Your task to perform on an android device: Check the news Image 0: 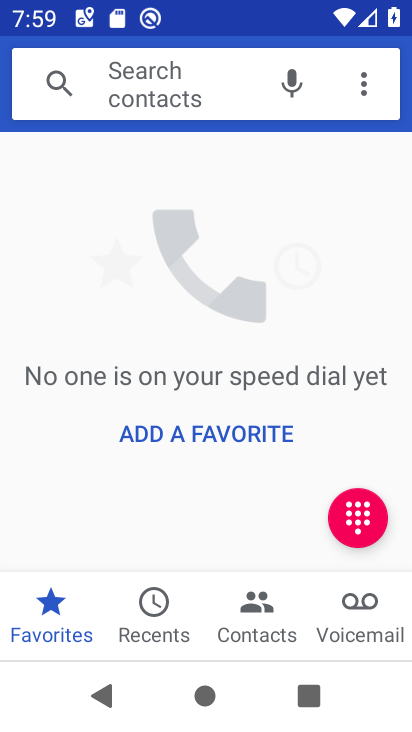
Step 0: press back button
Your task to perform on an android device: Check the news Image 1: 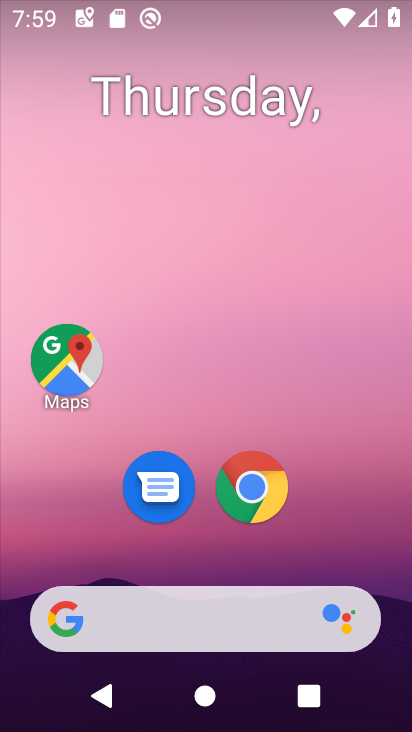
Step 1: click (169, 621)
Your task to perform on an android device: Check the news Image 2: 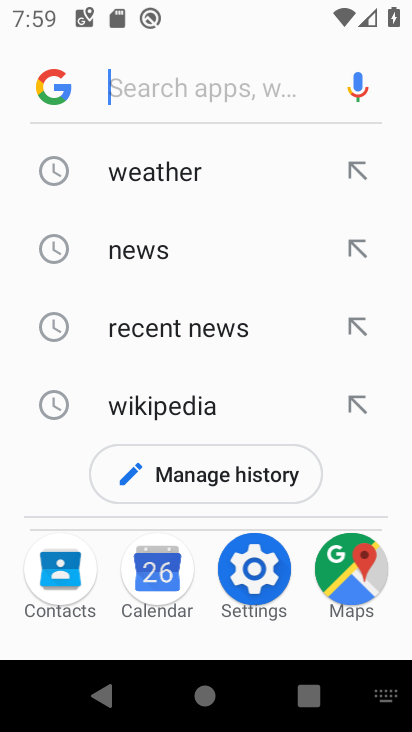
Step 2: click (175, 261)
Your task to perform on an android device: Check the news Image 3: 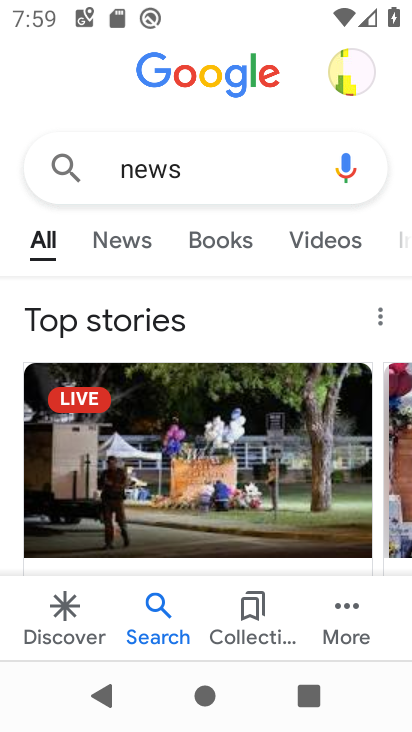
Step 3: task complete